Your task to perform on an android device: delete the emails in spam in the gmail app Image 0: 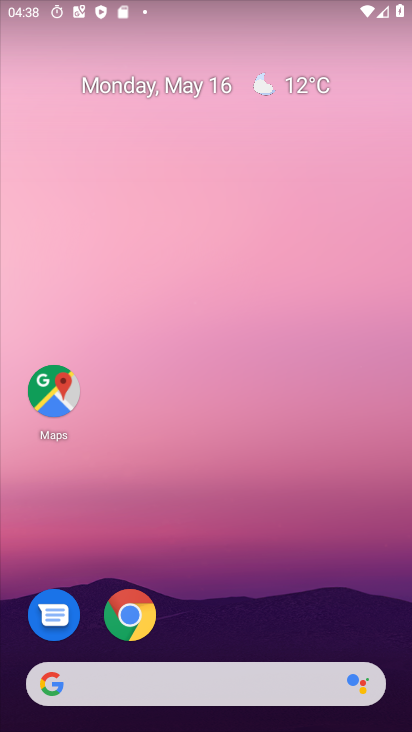
Step 0: drag from (224, 578) to (97, 1)
Your task to perform on an android device: delete the emails in spam in the gmail app Image 1: 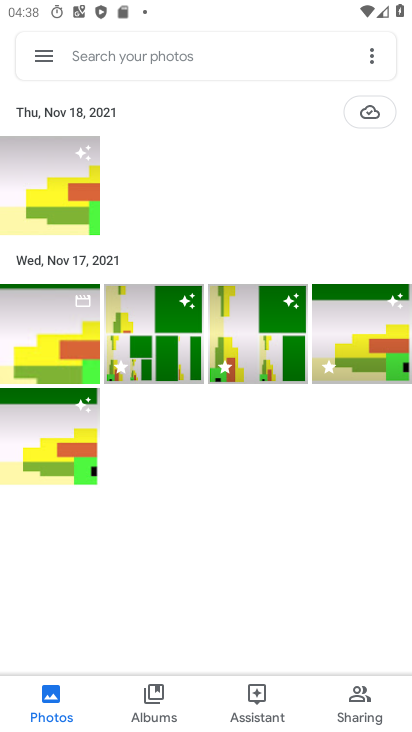
Step 1: press back button
Your task to perform on an android device: delete the emails in spam in the gmail app Image 2: 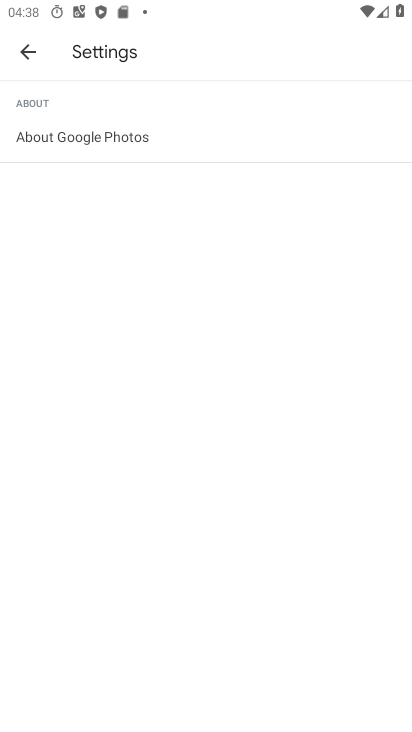
Step 2: click (18, 56)
Your task to perform on an android device: delete the emails in spam in the gmail app Image 3: 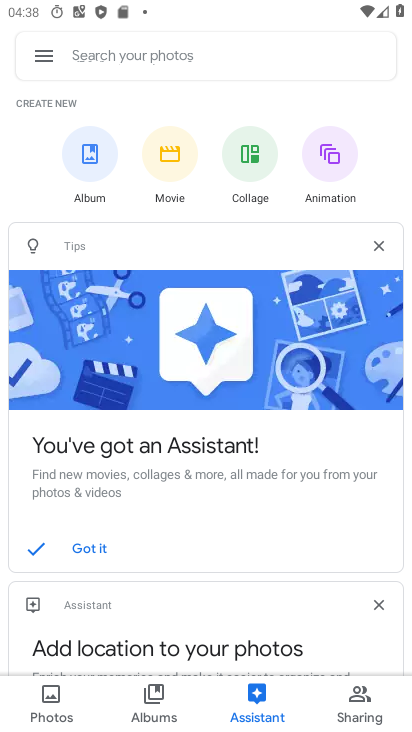
Step 3: drag from (167, 499) to (88, 164)
Your task to perform on an android device: delete the emails in spam in the gmail app Image 4: 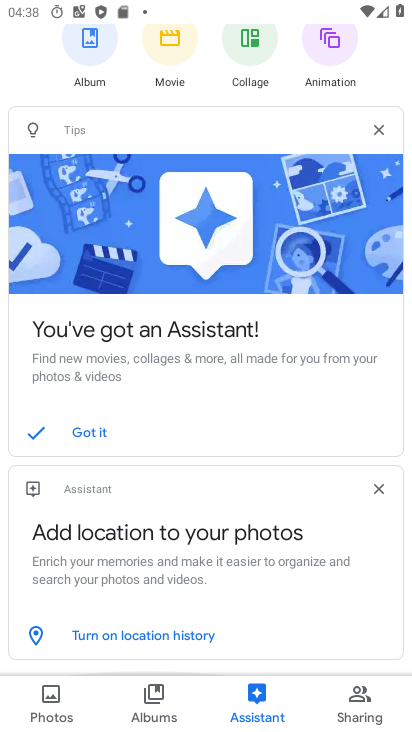
Step 4: drag from (223, 456) to (145, 144)
Your task to perform on an android device: delete the emails in spam in the gmail app Image 5: 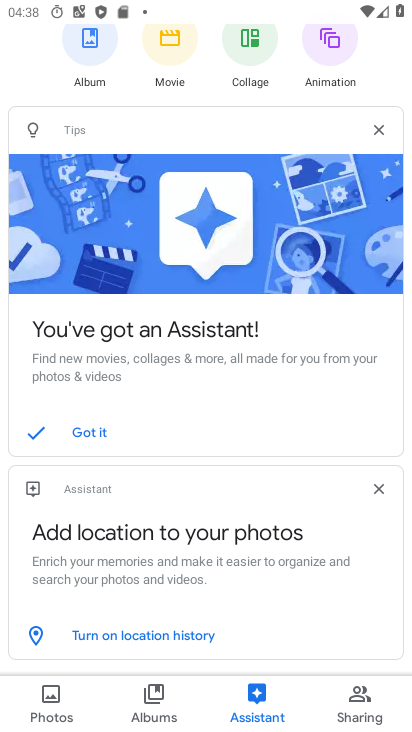
Step 5: drag from (213, 417) to (152, 124)
Your task to perform on an android device: delete the emails in spam in the gmail app Image 6: 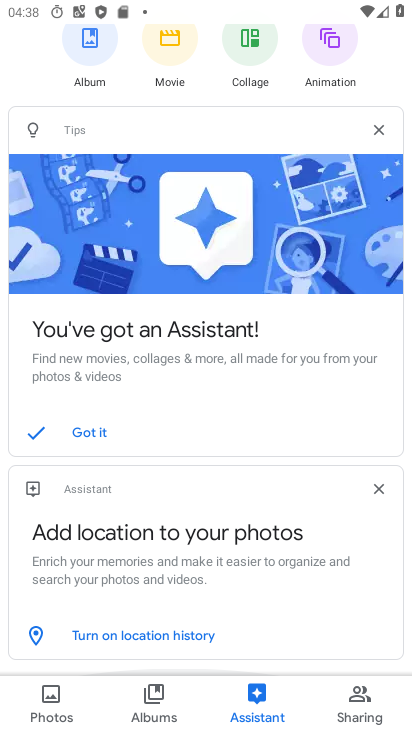
Step 6: drag from (185, 414) to (192, 147)
Your task to perform on an android device: delete the emails in spam in the gmail app Image 7: 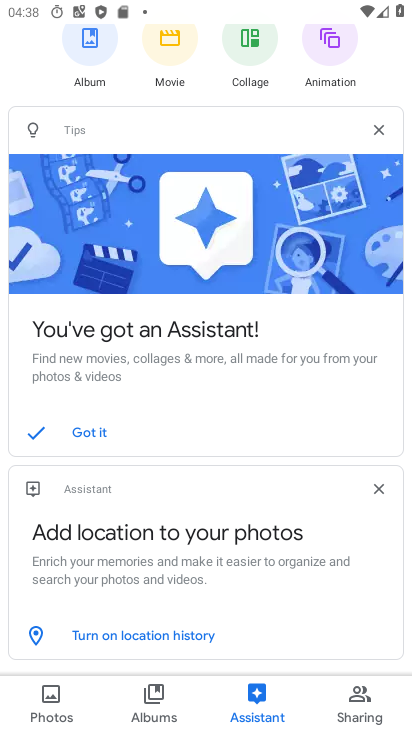
Step 7: drag from (143, 427) to (173, 159)
Your task to perform on an android device: delete the emails in spam in the gmail app Image 8: 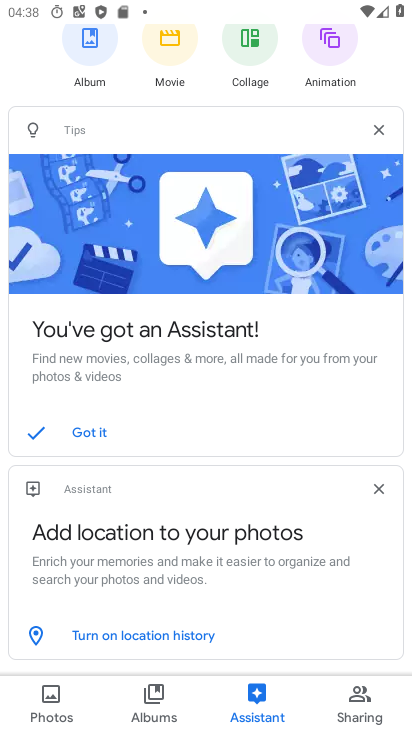
Step 8: drag from (167, 414) to (166, 83)
Your task to perform on an android device: delete the emails in spam in the gmail app Image 9: 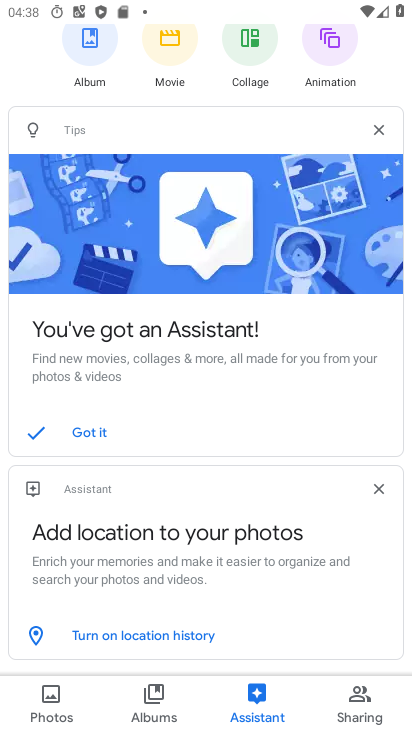
Step 9: drag from (280, 473) to (269, 82)
Your task to perform on an android device: delete the emails in spam in the gmail app Image 10: 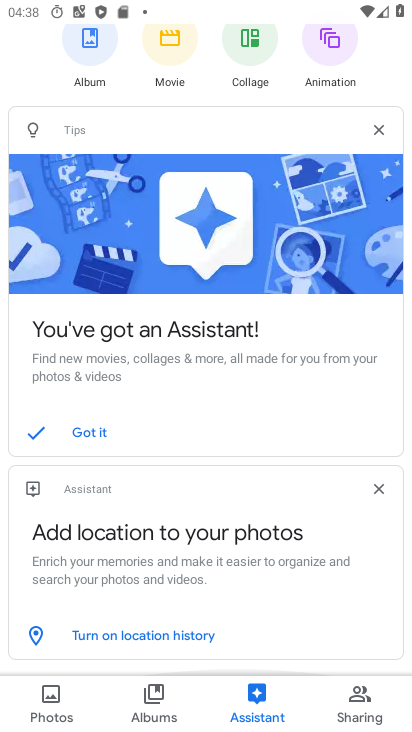
Step 10: drag from (161, 347) to (162, 141)
Your task to perform on an android device: delete the emails in spam in the gmail app Image 11: 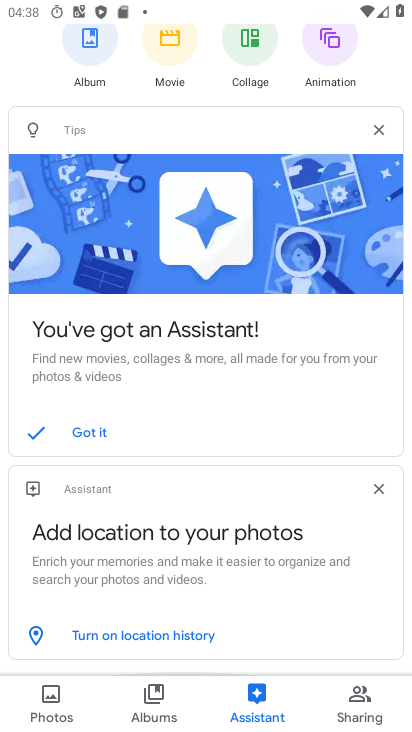
Step 11: drag from (233, 401) to (236, 108)
Your task to perform on an android device: delete the emails in spam in the gmail app Image 12: 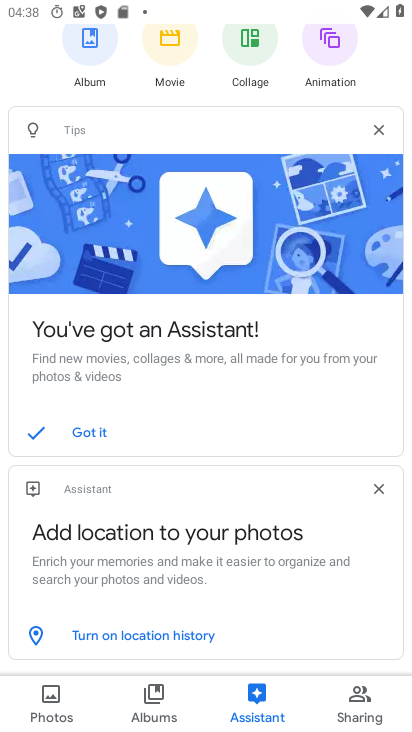
Step 12: drag from (210, 364) to (201, 241)
Your task to perform on an android device: delete the emails in spam in the gmail app Image 13: 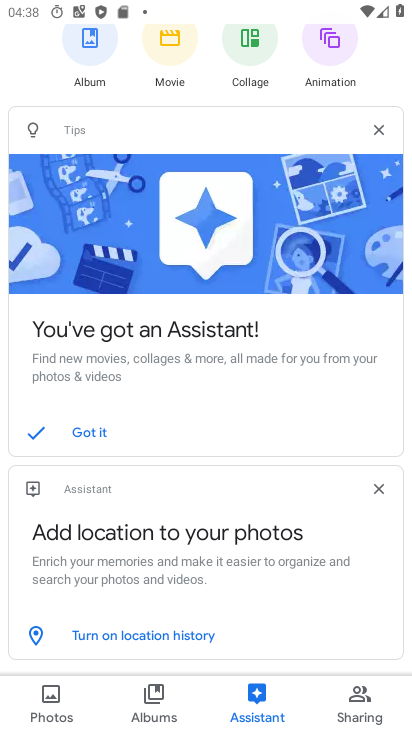
Step 13: drag from (187, 495) to (86, 160)
Your task to perform on an android device: delete the emails in spam in the gmail app Image 14: 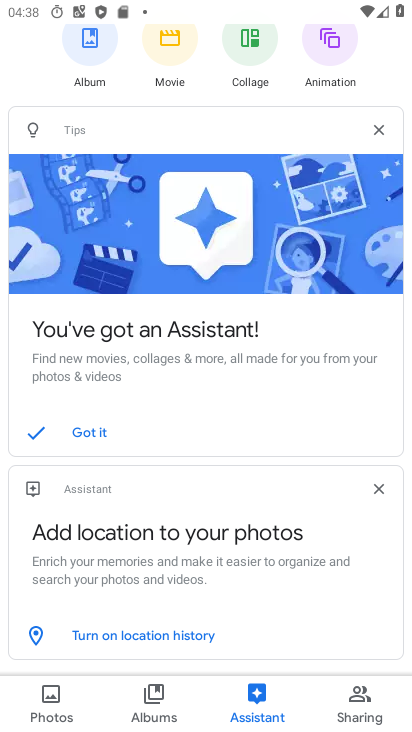
Step 14: drag from (245, 471) to (134, 100)
Your task to perform on an android device: delete the emails in spam in the gmail app Image 15: 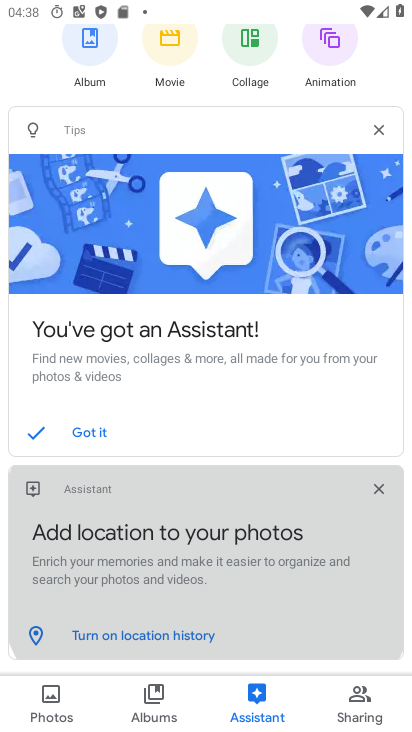
Step 15: drag from (214, 364) to (167, 41)
Your task to perform on an android device: delete the emails in spam in the gmail app Image 16: 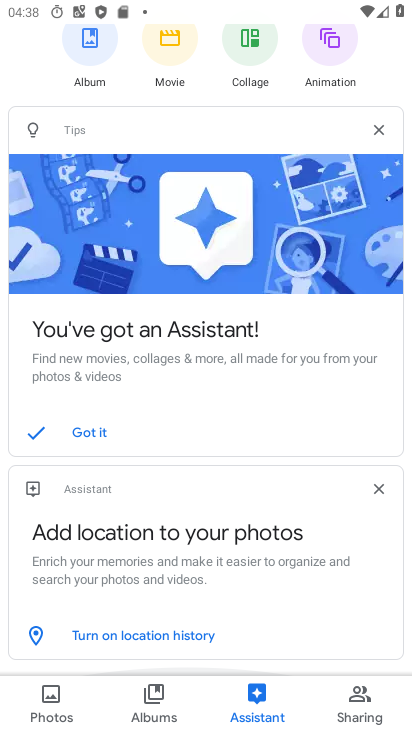
Step 16: drag from (261, 455) to (197, 47)
Your task to perform on an android device: delete the emails in spam in the gmail app Image 17: 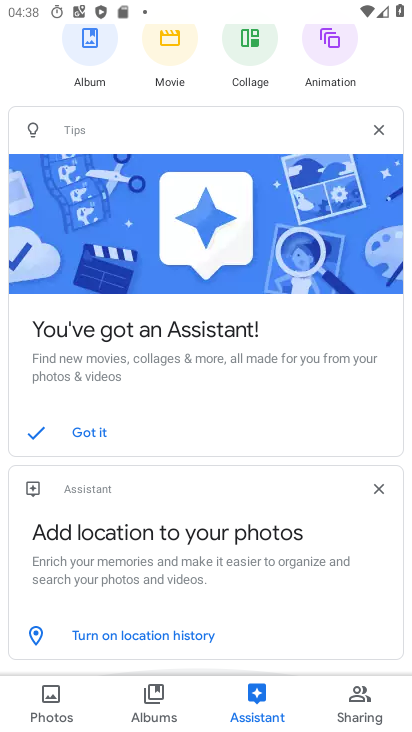
Step 17: drag from (257, 469) to (169, 79)
Your task to perform on an android device: delete the emails in spam in the gmail app Image 18: 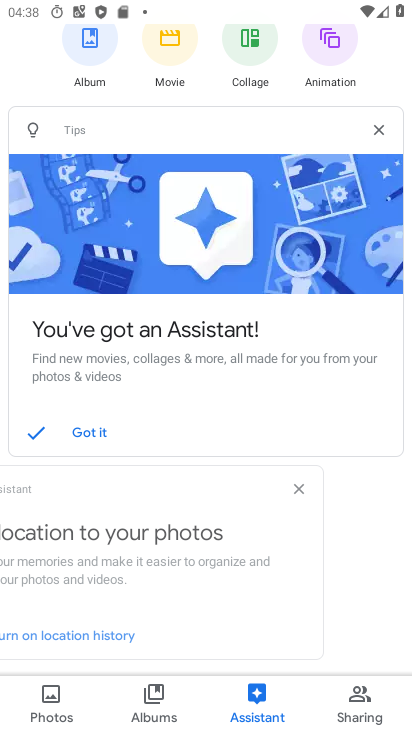
Step 18: drag from (131, 376) to (200, 15)
Your task to perform on an android device: delete the emails in spam in the gmail app Image 19: 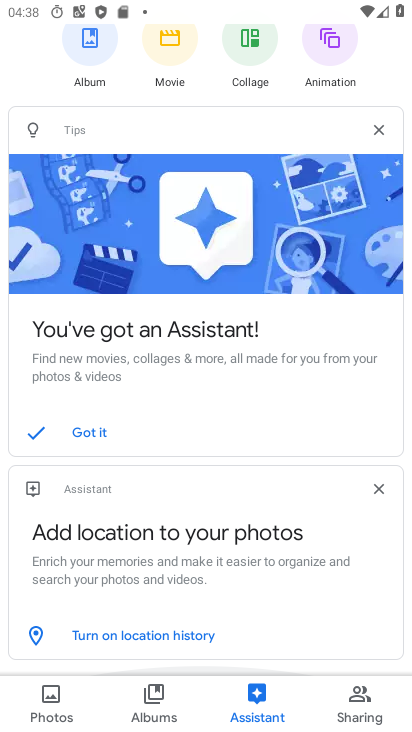
Step 19: drag from (211, 312) to (223, 65)
Your task to perform on an android device: delete the emails in spam in the gmail app Image 20: 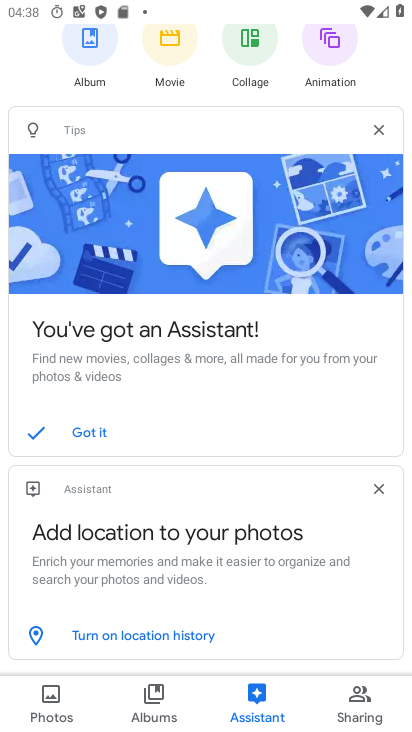
Step 20: drag from (192, 218) to (307, 651)
Your task to perform on an android device: delete the emails in spam in the gmail app Image 21: 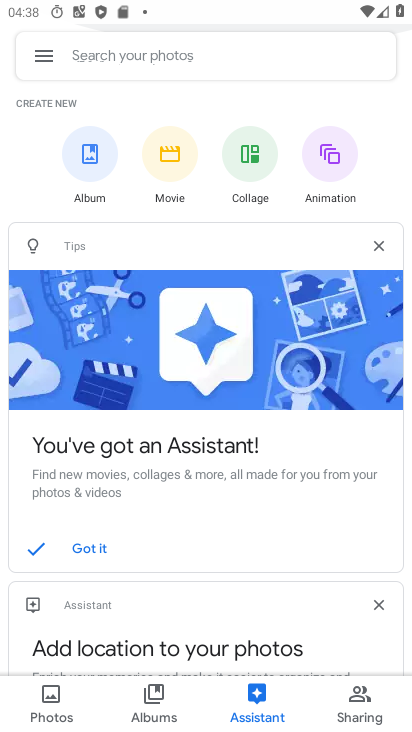
Step 21: drag from (210, 236) to (222, 593)
Your task to perform on an android device: delete the emails in spam in the gmail app Image 22: 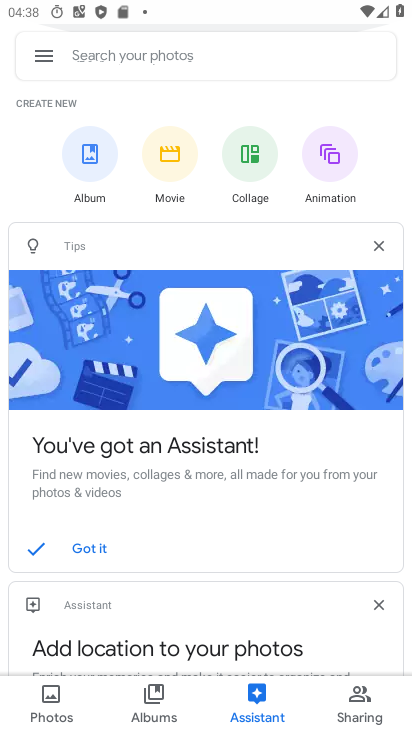
Step 22: drag from (131, 221) to (228, 535)
Your task to perform on an android device: delete the emails in spam in the gmail app Image 23: 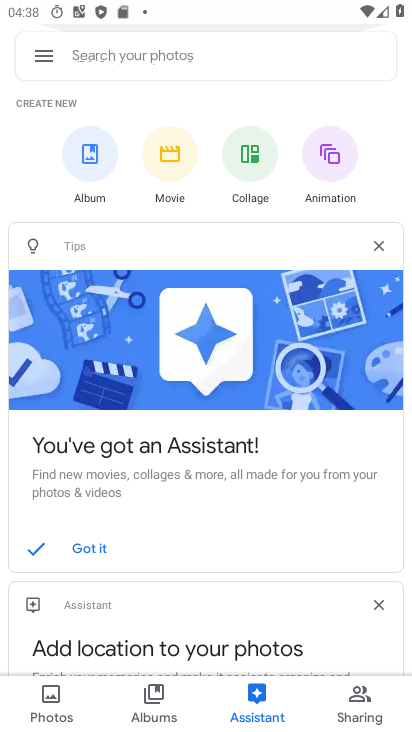
Step 23: drag from (165, 254) to (244, 549)
Your task to perform on an android device: delete the emails in spam in the gmail app Image 24: 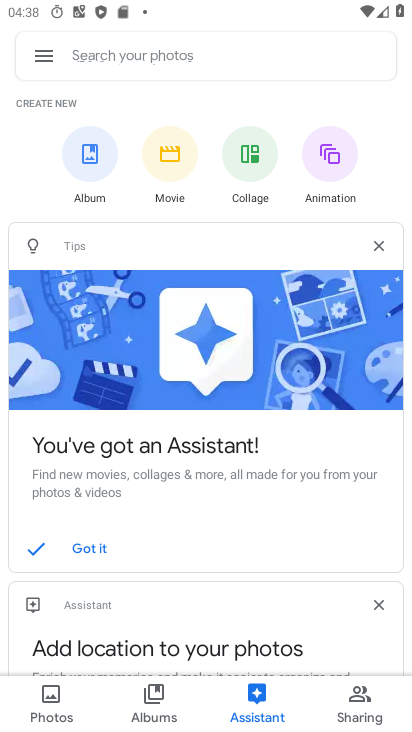
Step 24: press back button
Your task to perform on an android device: delete the emails in spam in the gmail app Image 25: 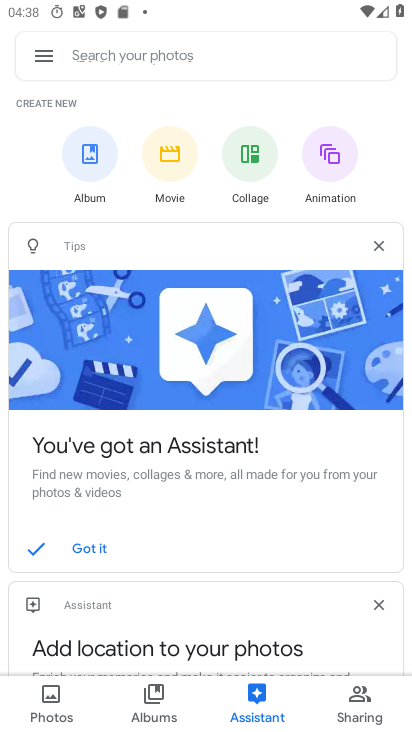
Step 25: press back button
Your task to perform on an android device: delete the emails in spam in the gmail app Image 26: 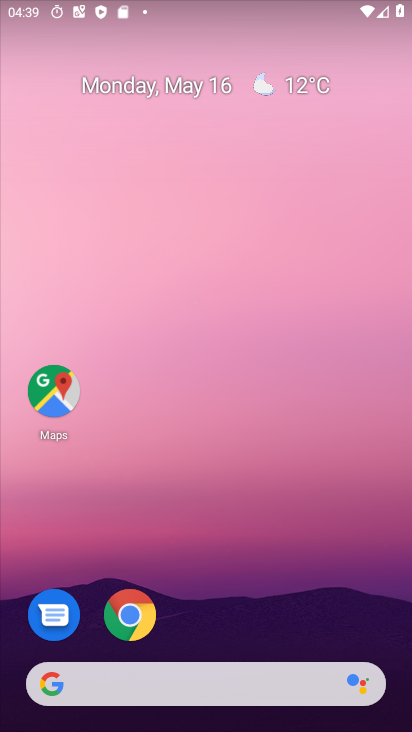
Step 26: drag from (245, 663) to (114, 215)
Your task to perform on an android device: delete the emails in spam in the gmail app Image 27: 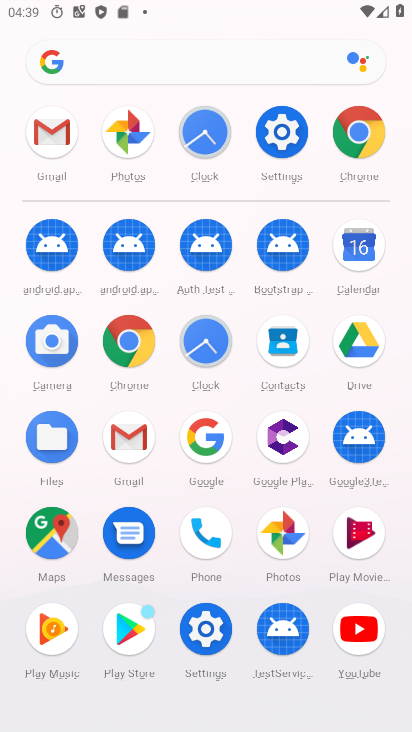
Step 27: click (135, 436)
Your task to perform on an android device: delete the emails in spam in the gmail app Image 28: 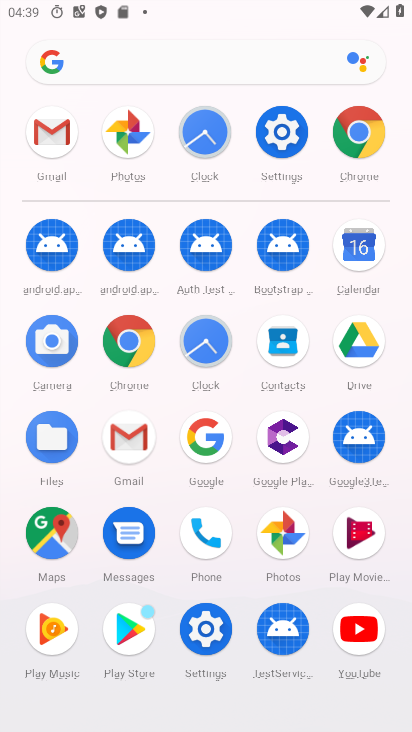
Step 28: click (138, 434)
Your task to perform on an android device: delete the emails in spam in the gmail app Image 29: 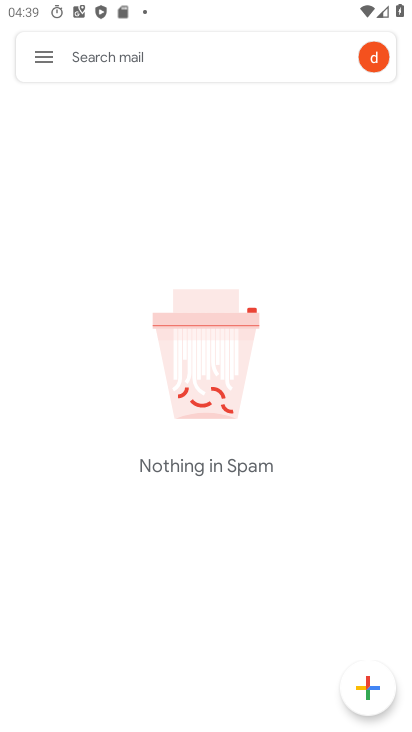
Step 29: click (140, 444)
Your task to perform on an android device: delete the emails in spam in the gmail app Image 30: 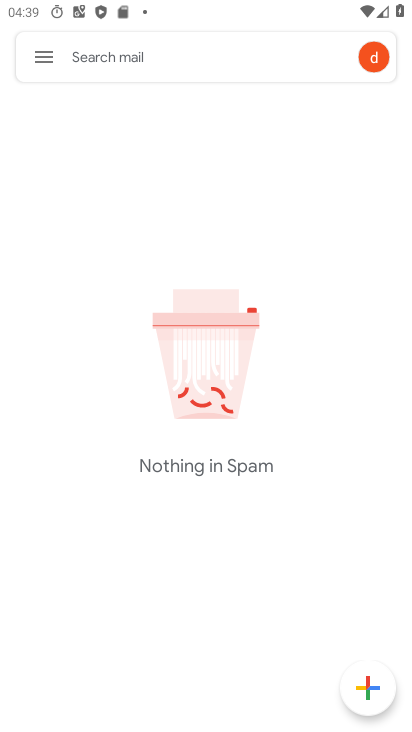
Step 30: task complete